Your task to perform on an android device: Go to location settings Image 0: 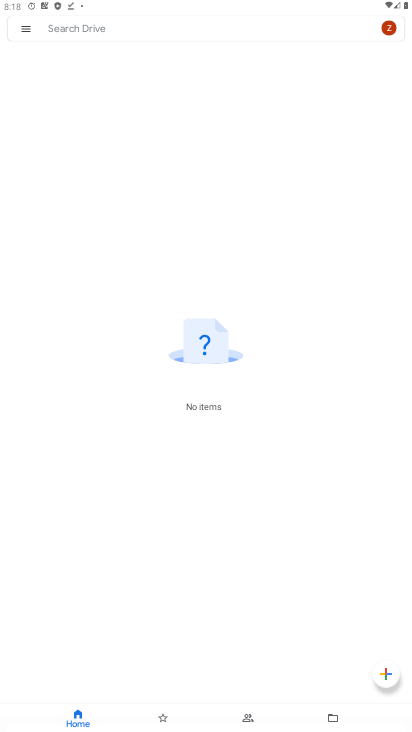
Step 0: press home button
Your task to perform on an android device: Go to location settings Image 1: 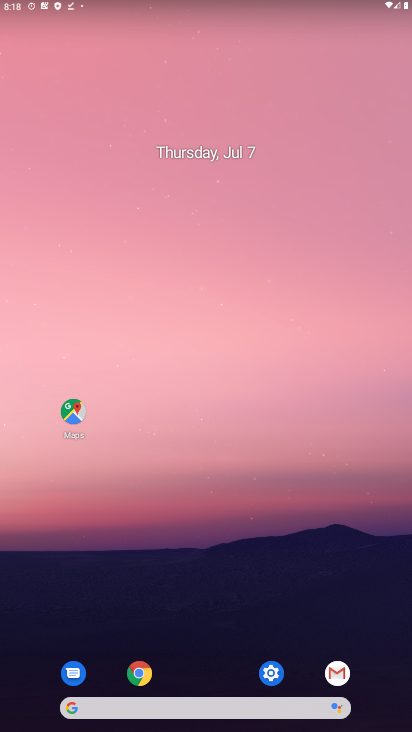
Step 1: click (268, 684)
Your task to perform on an android device: Go to location settings Image 2: 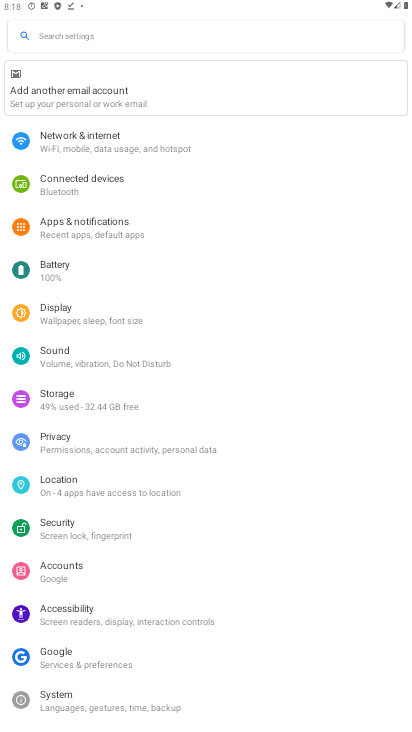
Step 2: click (98, 44)
Your task to perform on an android device: Go to location settings Image 3: 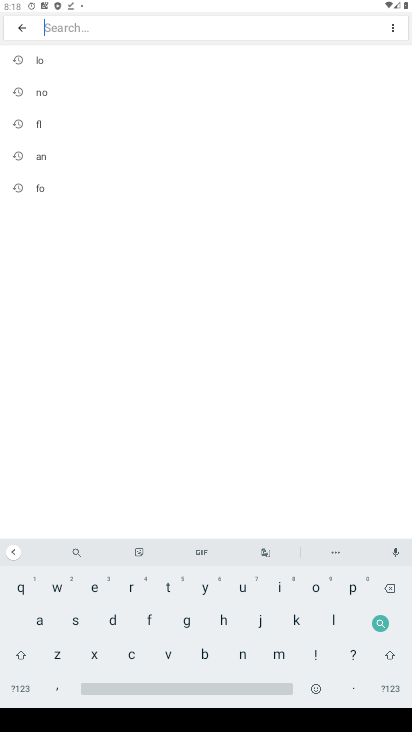
Step 3: click (334, 616)
Your task to perform on an android device: Go to location settings Image 4: 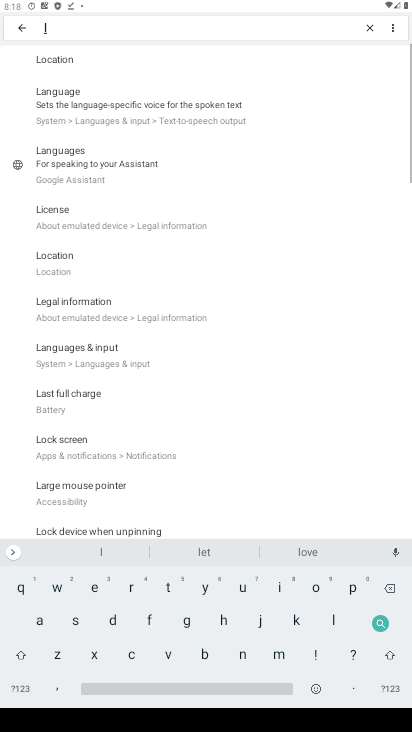
Step 4: click (311, 592)
Your task to perform on an android device: Go to location settings Image 5: 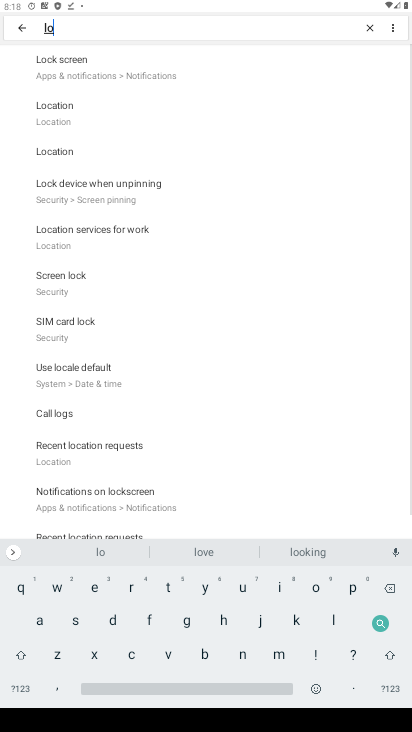
Step 5: click (75, 109)
Your task to perform on an android device: Go to location settings Image 6: 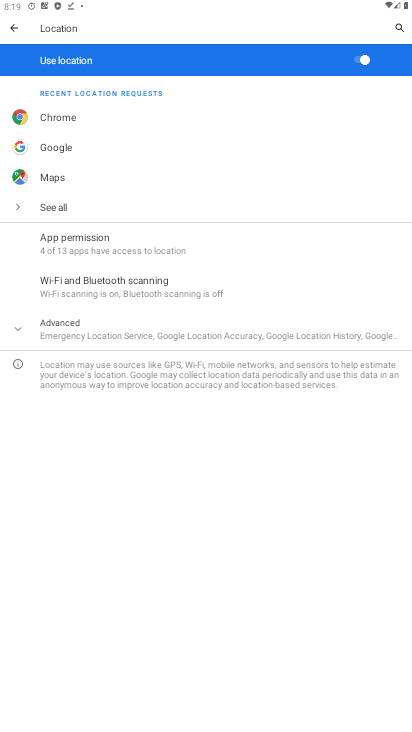
Step 6: task complete